Your task to perform on an android device: find photos in the google photos app Image 0: 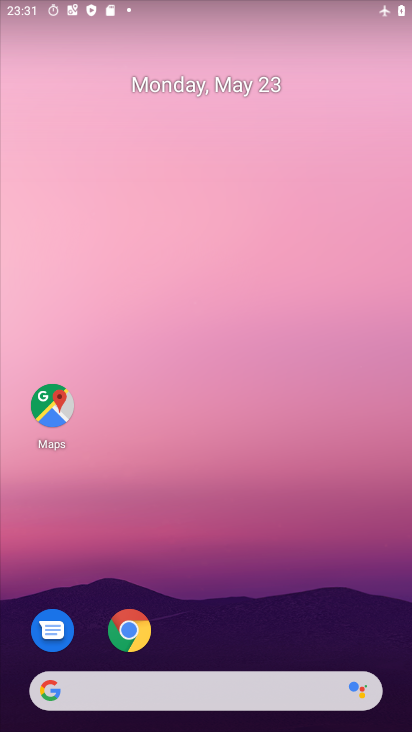
Step 0: drag from (302, 659) to (336, 0)
Your task to perform on an android device: find photos in the google photos app Image 1: 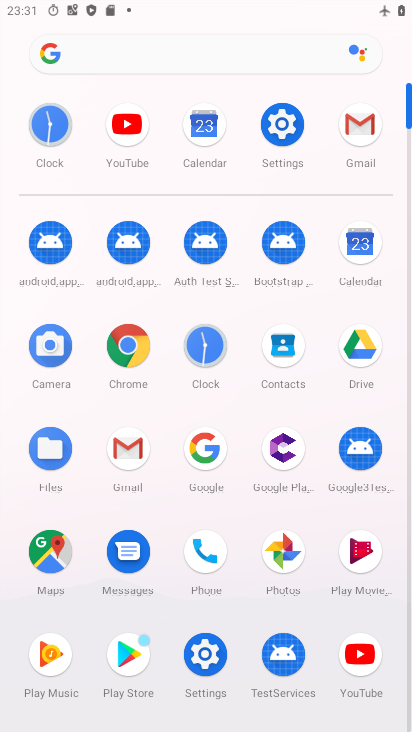
Step 1: click (279, 555)
Your task to perform on an android device: find photos in the google photos app Image 2: 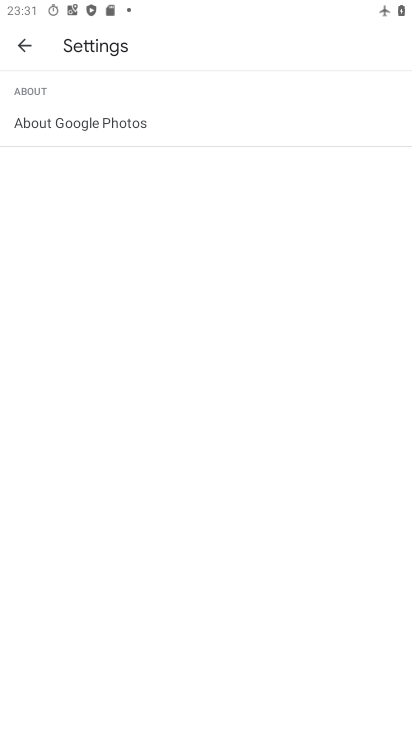
Step 2: click (28, 53)
Your task to perform on an android device: find photos in the google photos app Image 3: 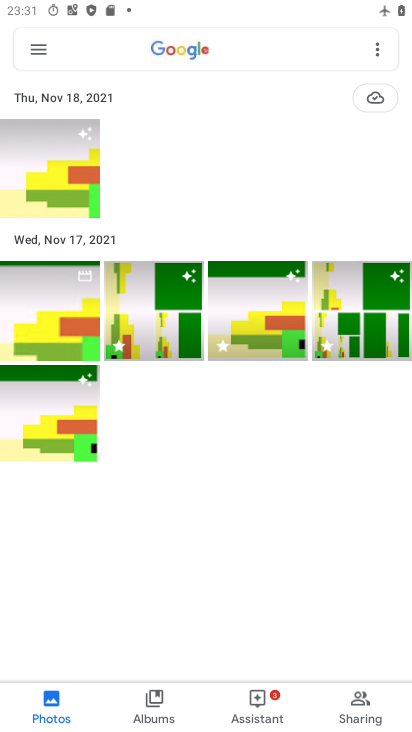
Step 3: click (52, 711)
Your task to perform on an android device: find photos in the google photos app Image 4: 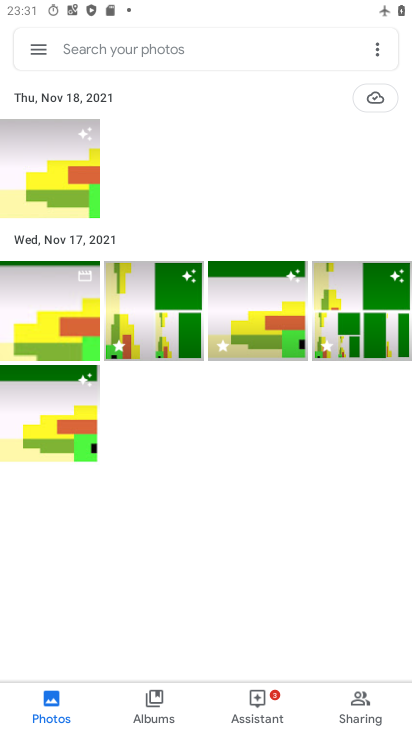
Step 4: task complete